Your task to perform on an android device: Show me popular games on the Play Store Image 0: 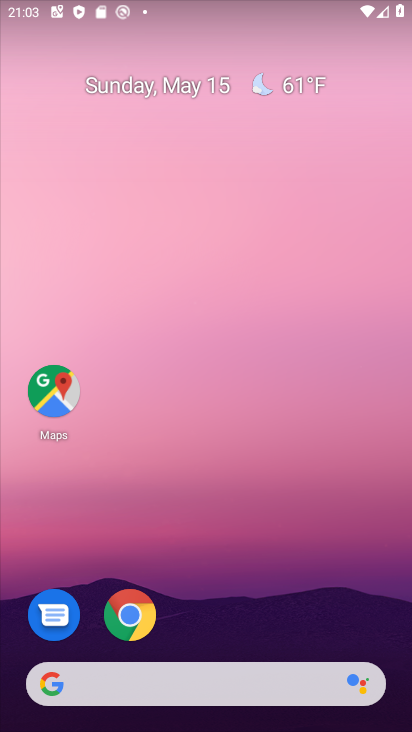
Step 0: drag from (271, 580) to (225, 12)
Your task to perform on an android device: Show me popular games on the Play Store Image 1: 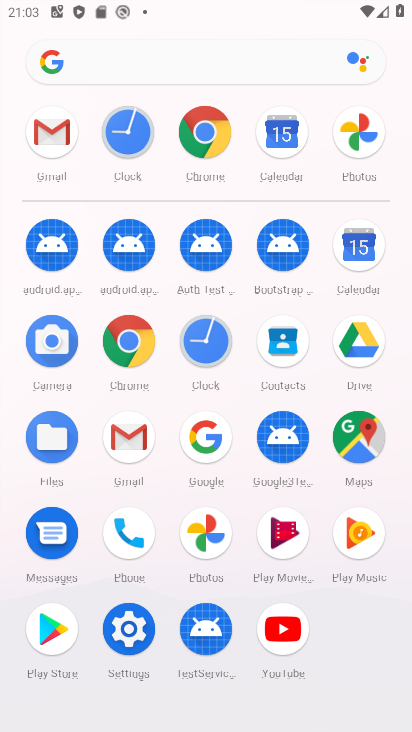
Step 1: click (51, 627)
Your task to perform on an android device: Show me popular games on the Play Store Image 2: 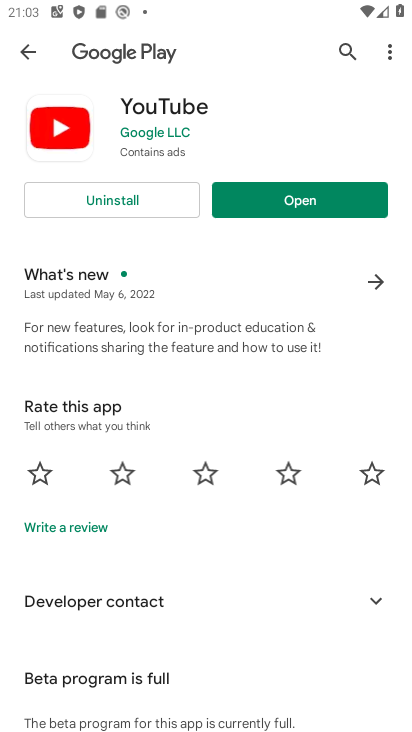
Step 2: click (37, 44)
Your task to perform on an android device: Show me popular games on the Play Store Image 3: 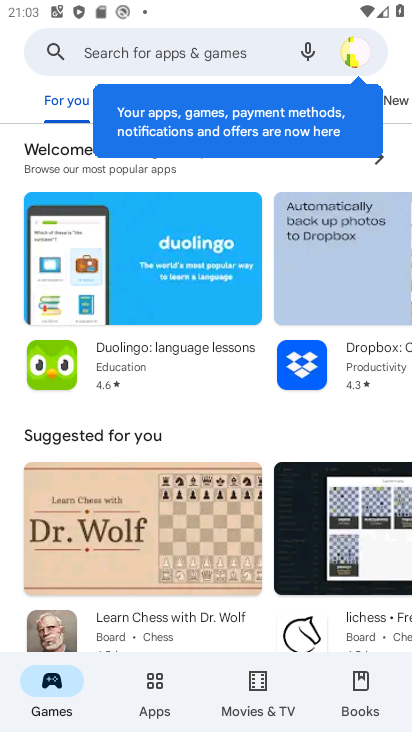
Step 3: click (152, 674)
Your task to perform on an android device: Show me popular games on the Play Store Image 4: 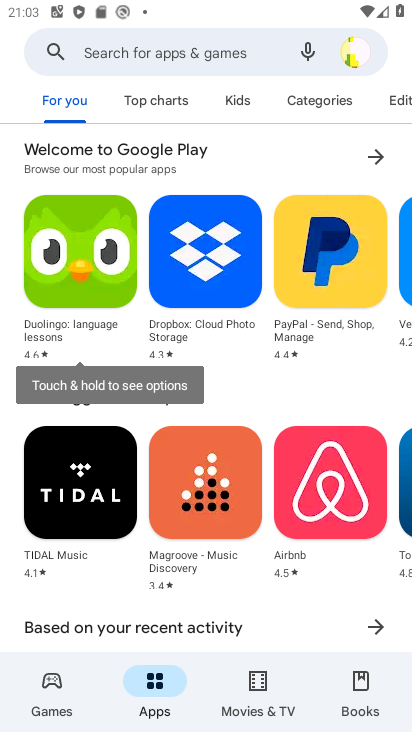
Step 4: click (42, 686)
Your task to perform on an android device: Show me popular games on the Play Store Image 5: 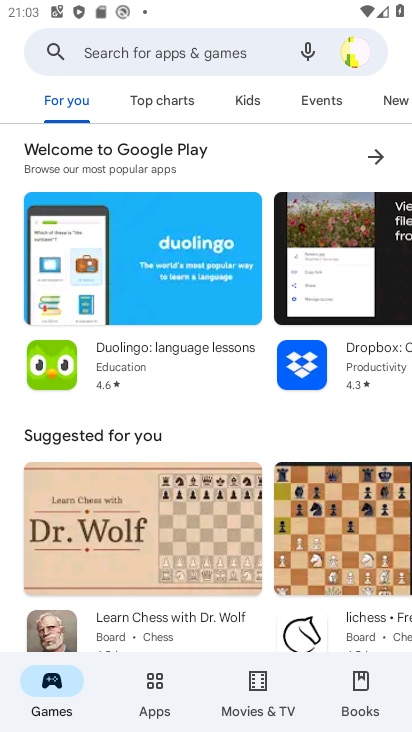
Step 5: task complete